Your task to perform on an android device: turn notification dots off Image 0: 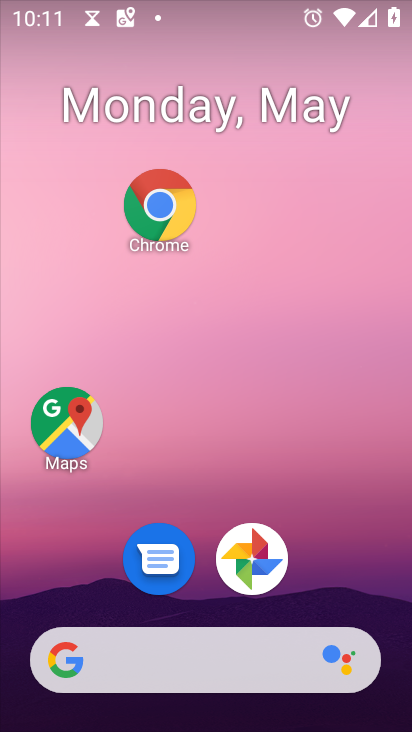
Step 0: drag from (292, 656) to (281, 21)
Your task to perform on an android device: turn notification dots off Image 1: 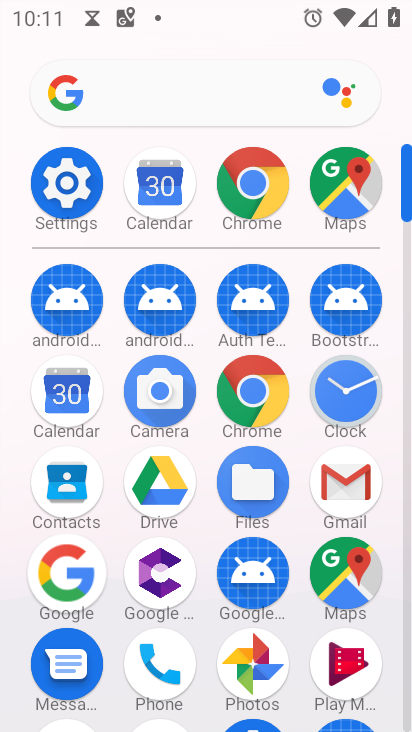
Step 1: click (61, 187)
Your task to perform on an android device: turn notification dots off Image 2: 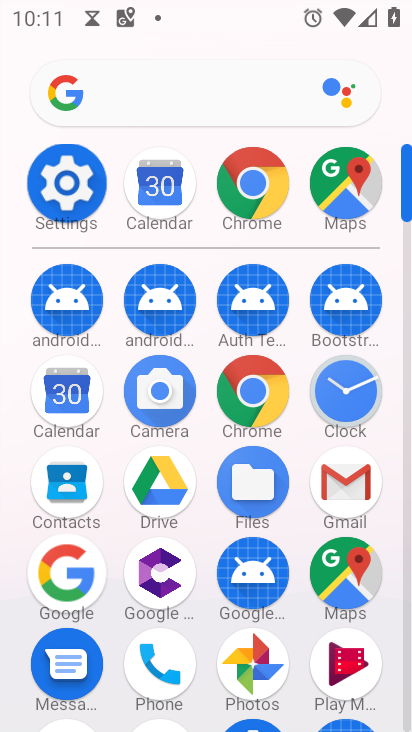
Step 2: click (62, 187)
Your task to perform on an android device: turn notification dots off Image 3: 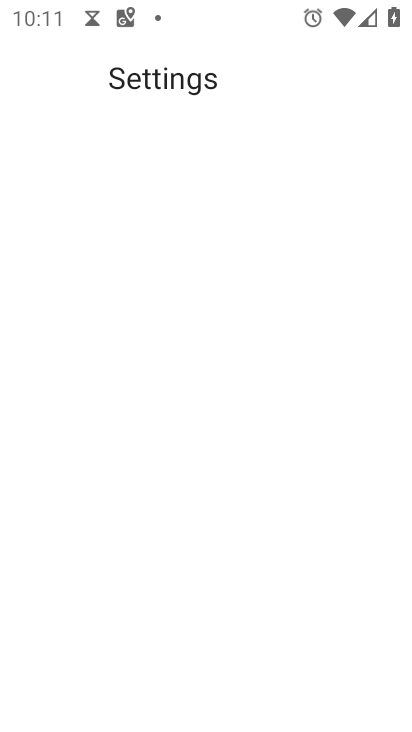
Step 3: click (62, 187)
Your task to perform on an android device: turn notification dots off Image 4: 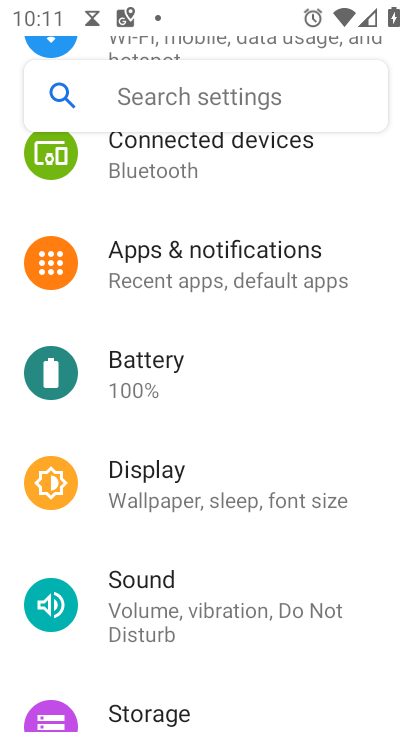
Step 4: click (228, 274)
Your task to perform on an android device: turn notification dots off Image 5: 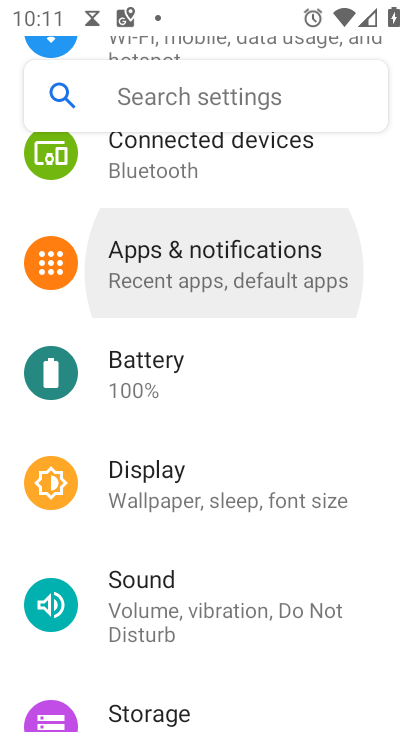
Step 5: click (224, 281)
Your task to perform on an android device: turn notification dots off Image 6: 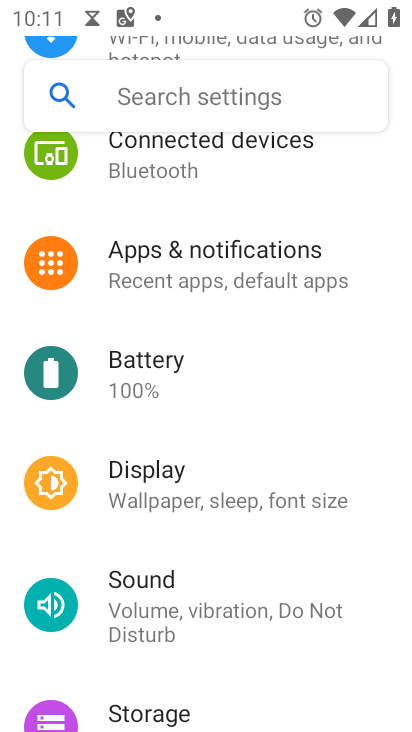
Step 6: click (227, 276)
Your task to perform on an android device: turn notification dots off Image 7: 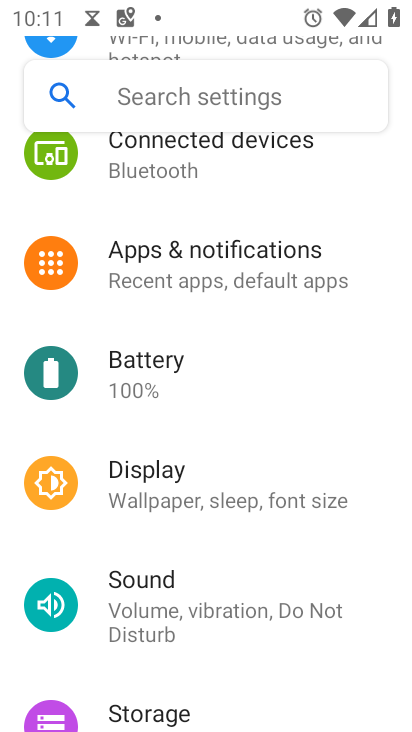
Step 7: click (229, 278)
Your task to perform on an android device: turn notification dots off Image 8: 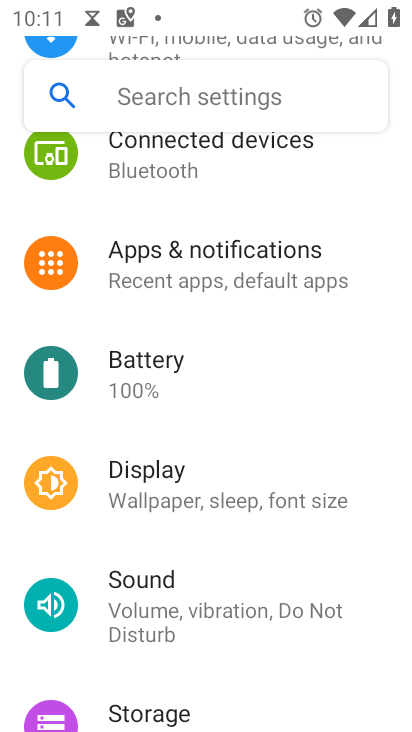
Step 8: click (228, 281)
Your task to perform on an android device: turn notification dots off Image 9: 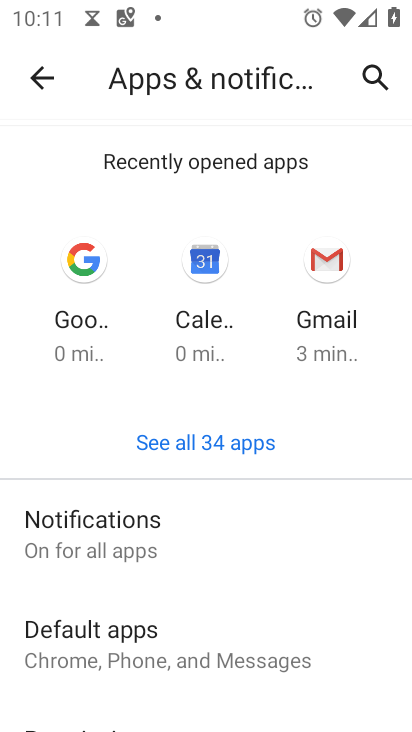
Step 9: click (95, 540)
Your task to perform on an android device: turn notification dots off Image 10: 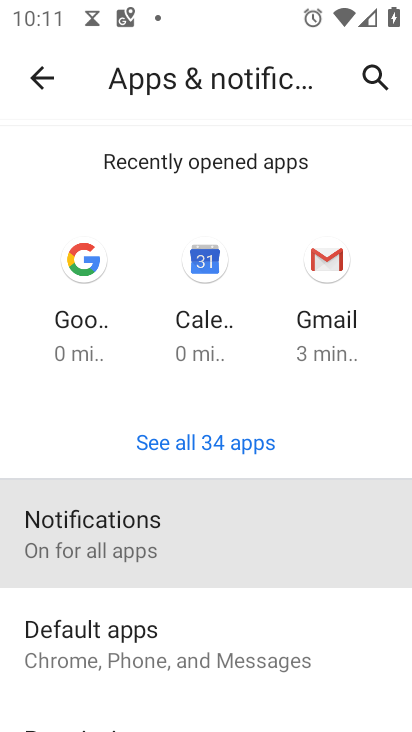
Step 10: click (95, 540)
Your task to perform on an android device: turn notification dots off Image 11: 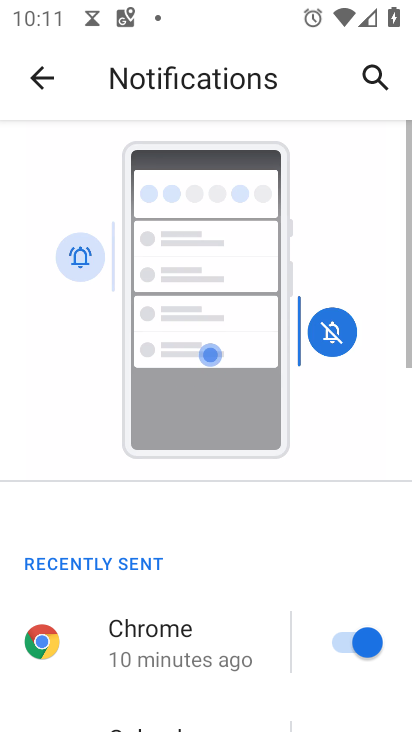
Step 11: drag from (217, 599) to (149, 153)
Your task to perform on an android device: turn notification dots off Image 12: 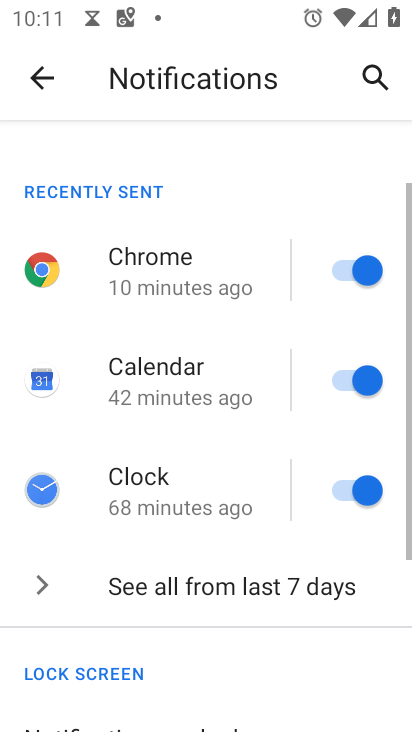
Step 12: drag from (195, 314) to (187, 80)
Your task to perform on an android device: turn notification dots off Image 13: 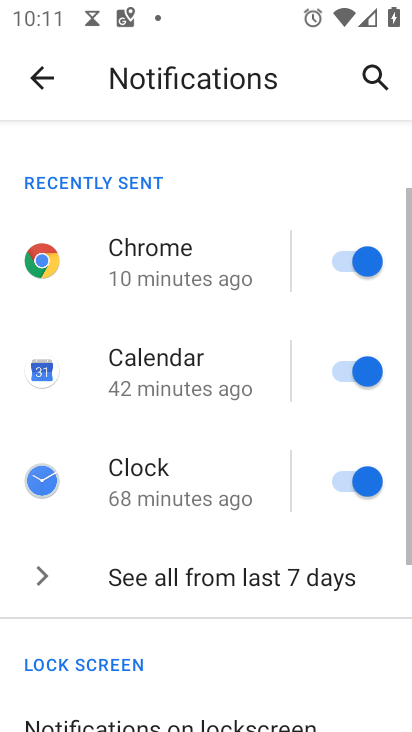
Step 13: drag from (179, 494) to (166, 165)
Your task to perform on an android device: turn notification dots off Image 14: 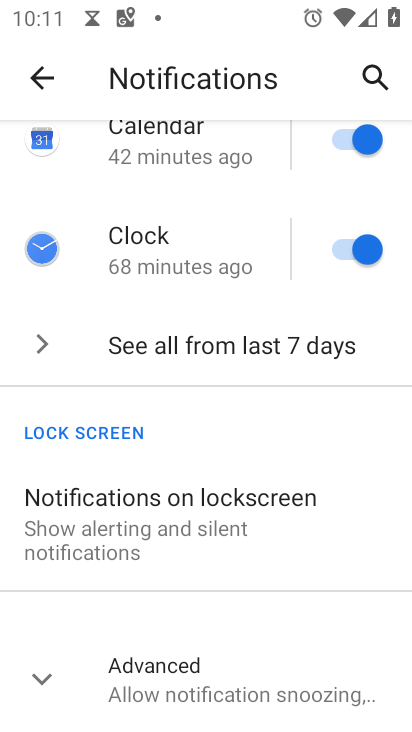
Step 14: click (173, 657)
Your task to perform on an android device: turn notification dots off Image 15: 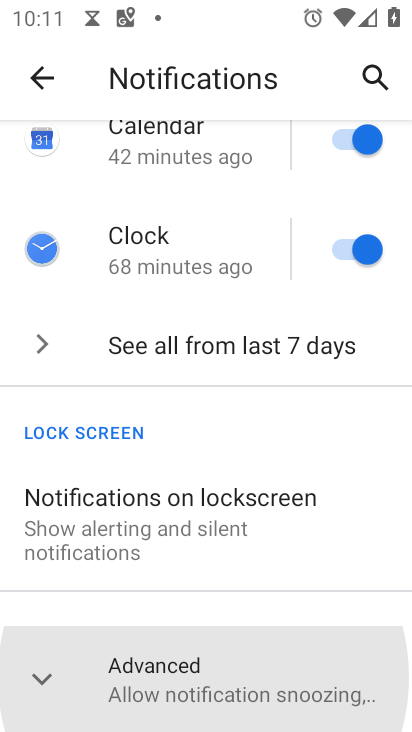
Step 15: click (174, 663)
Your task to perform on an android device: turn notification dots off Image 16: 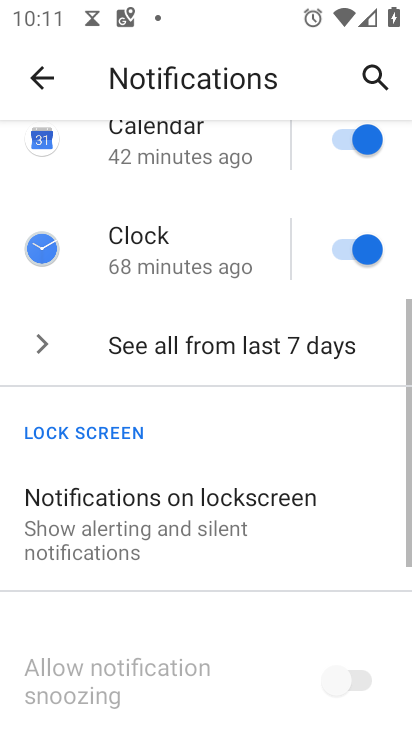
Step 16: click (183, 676)
Your task to perform on an android device: turn notification dots off Image 17: 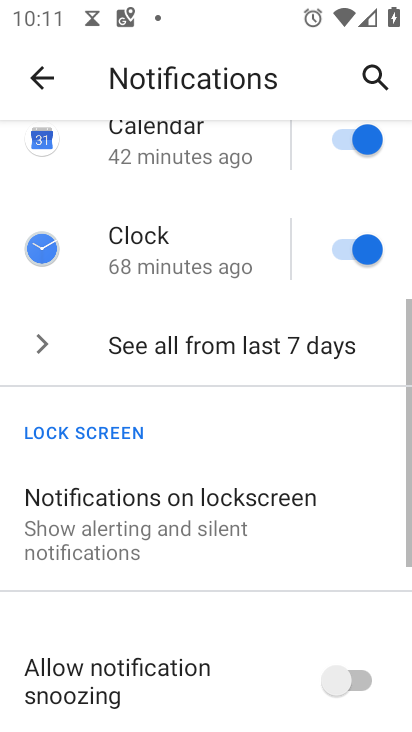
Step 17: click (186, 672)
Your task to perform on an android device: turn notification dots off Image 18: 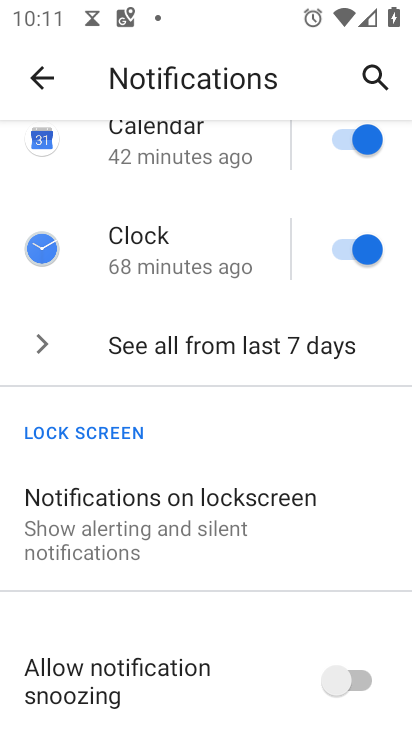
Step 18: drag from (210, 606) to (112, 92)
Your task to perform on an android device: turn notification dots off Image 19: 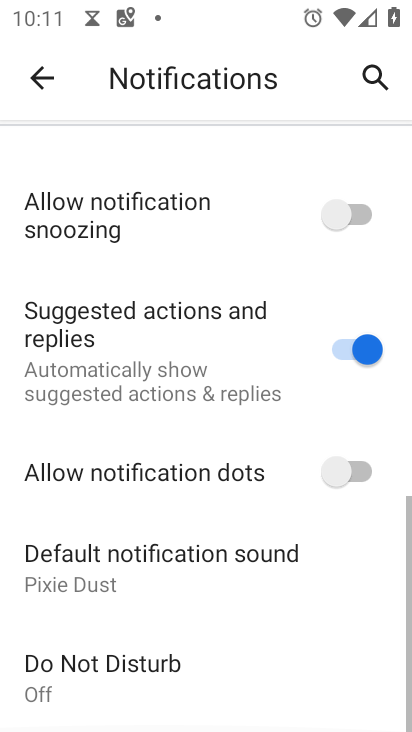
Step 19: drag from (223, 437) to (201, 74)
Your task to perform on an android device: turn notification dots off Image 20: 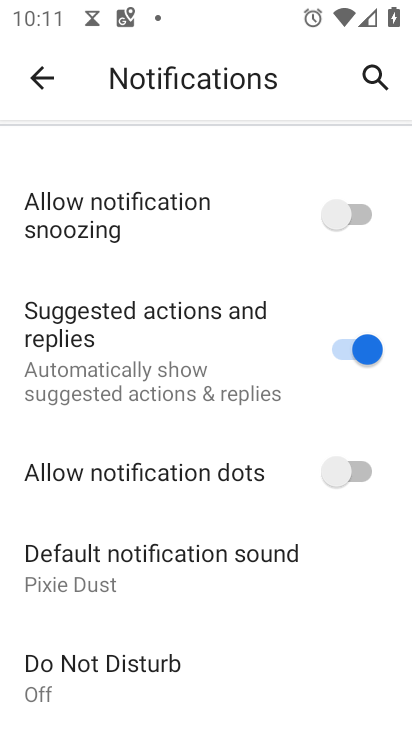
Step 20: click (340, 477)
Your task to perform on an android device: turn notification dots off Image 21: 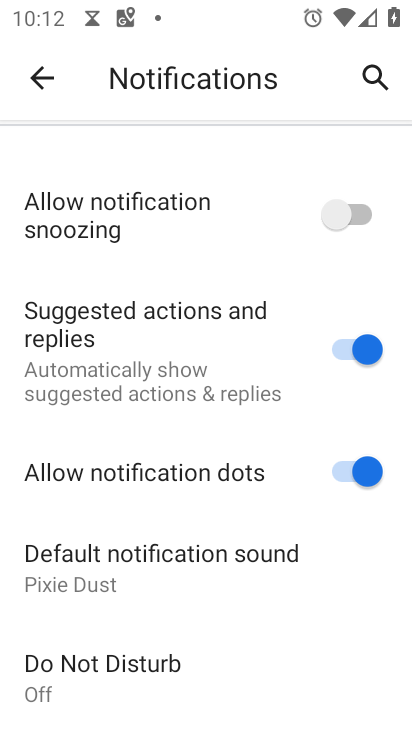
Step 21: click (375, 472)
Your task to perform on an android device: turn notification dots off Image 22: 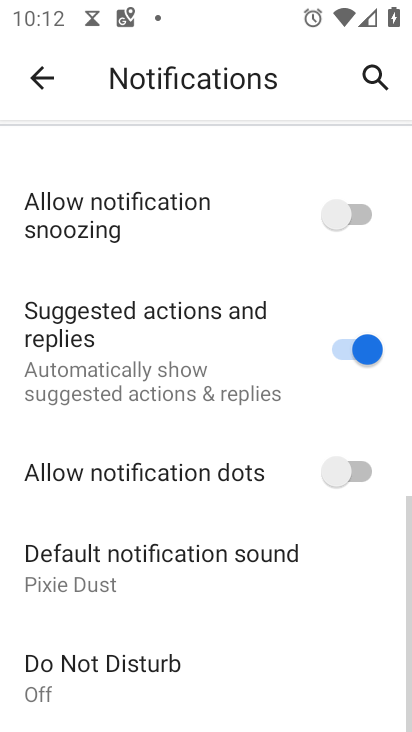
Step 22: task complete